Your task to perform on an android device: turn off notifications settings in the gmail app Image 0: 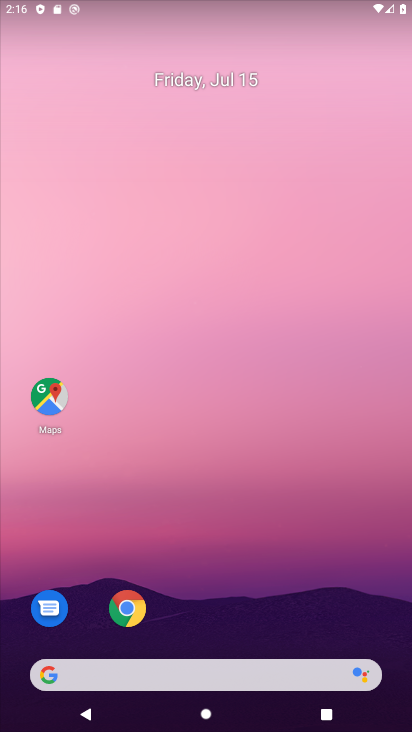
Step 0: drag from (247, 637) to (244, 6)
Your task to perform on an android device: turn off notifications settings in the gmail app Image 1: 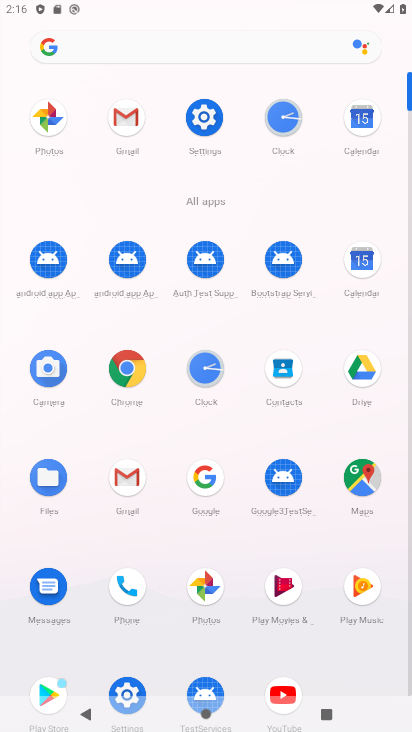
Step 1: click (130, 125)
Your task to perform on an android device: turn off notifications settings in the gmail app Image 2: 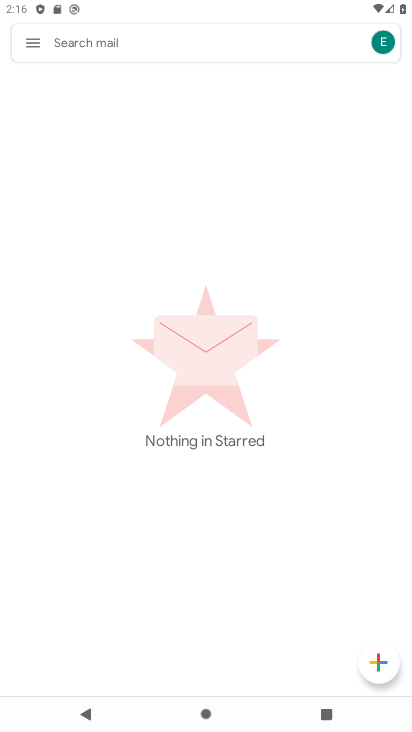
Step 2: click (30, 44)
Your task to perform on an android device: turn off notifications settings in the gmail app Image 3: 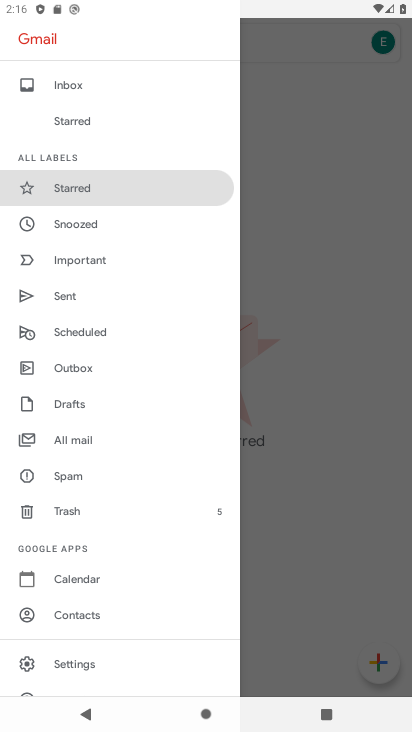
Step 3: click (89, 654)
Your task to perform on an android device: turn off notifications settings in the gmail app Image 4: 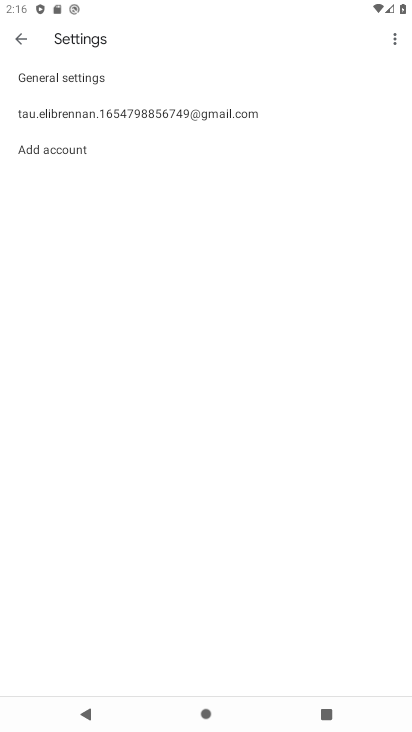
Step 4: click (179, 116)
Your task to perform on an android device: turn off notifications settings in the gmail app Image 5: 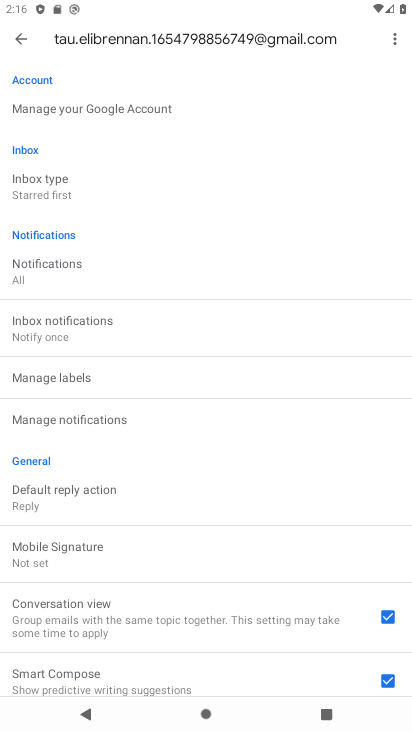
Step 5: click (133, 417)
Your task to perform on an android device: turn off notifications settings in the gmail app Image 6: 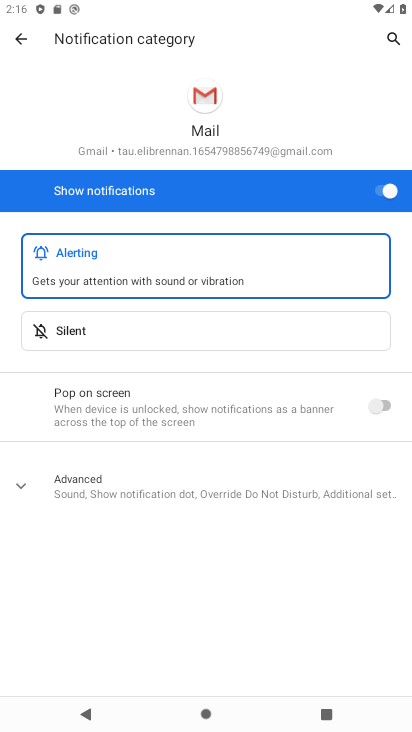
Step 6: task complete